Your task to perform on an android device: open app "Messages" (install if not already installed) Image 0: 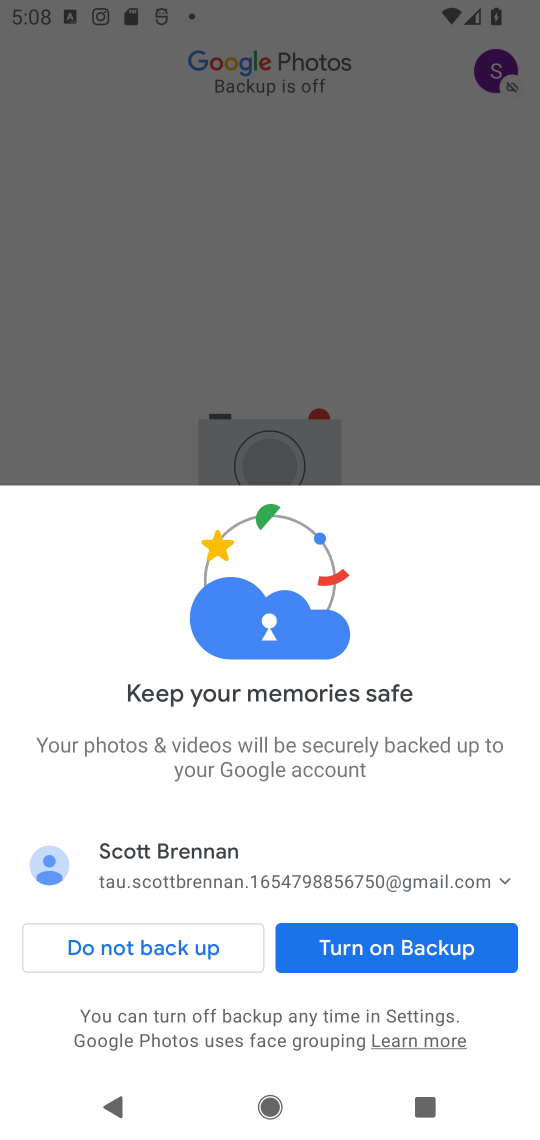
Step 0: press home button
Your task to perform on an android device: open app "Messages" (install if not already installed) Image 1: 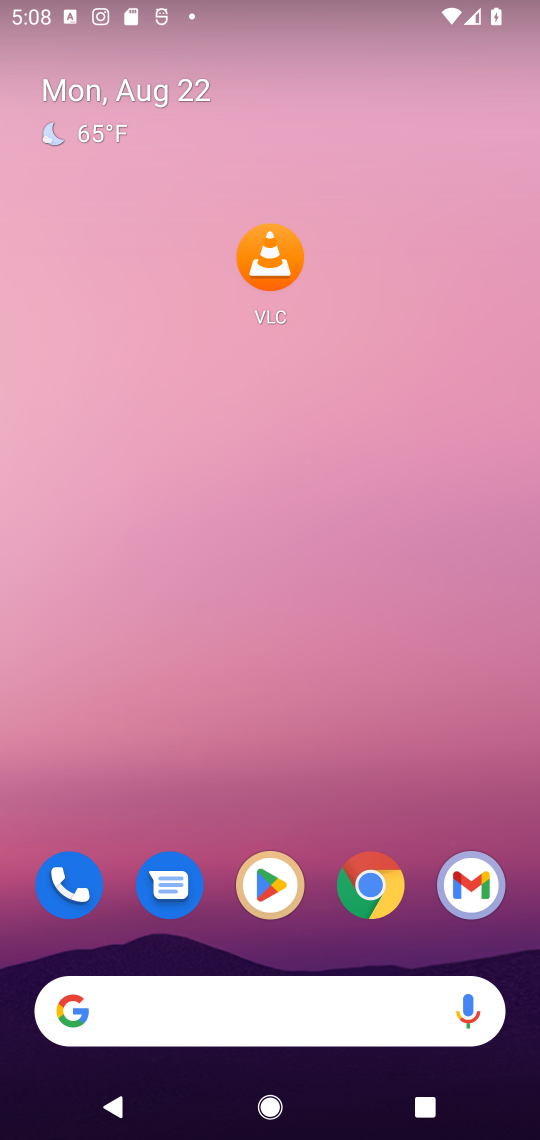
Step 1: click (266, 874)
Your task to perform on an android device: open app "Messages" (install if not already installed) Image 2: 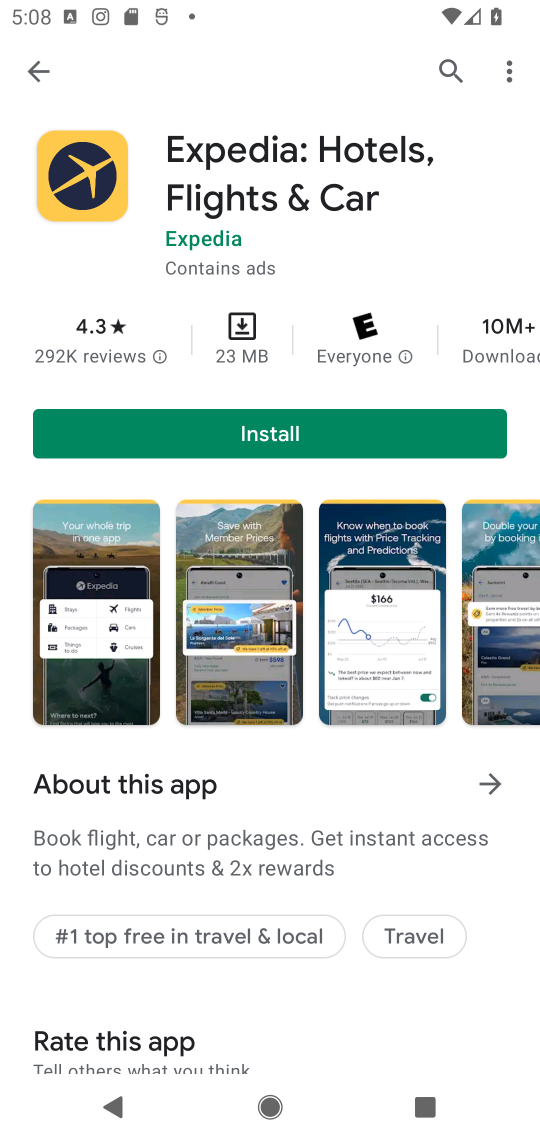
Step 2: click (453, 65)
Your task to perform on an android device: open app "Messages" (install if not already installed) Image 3: 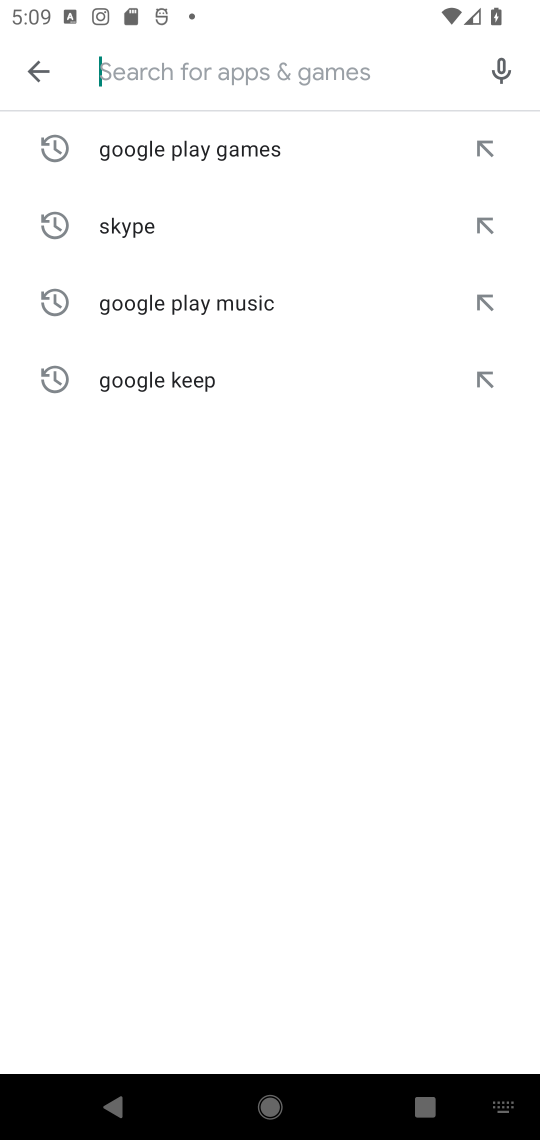
Step 3: type "Messages"
Your task to perform on an android device: open app "Messages" (install if not already installed) Image 4: 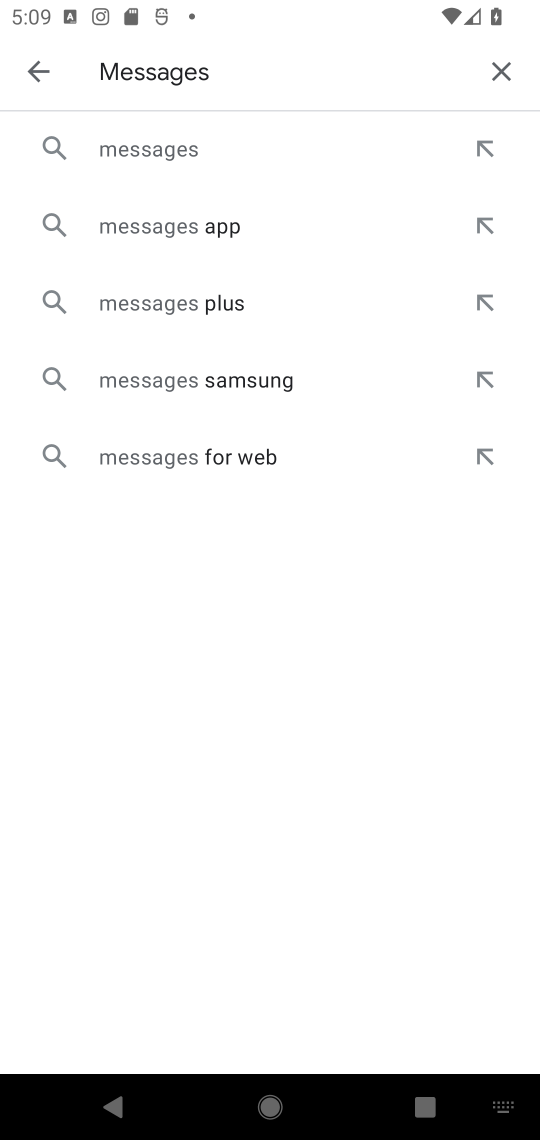
Step 4: click (155, 144)
Your task to perform on an android device: open app "Messages" (install if not already installed) Image 5: 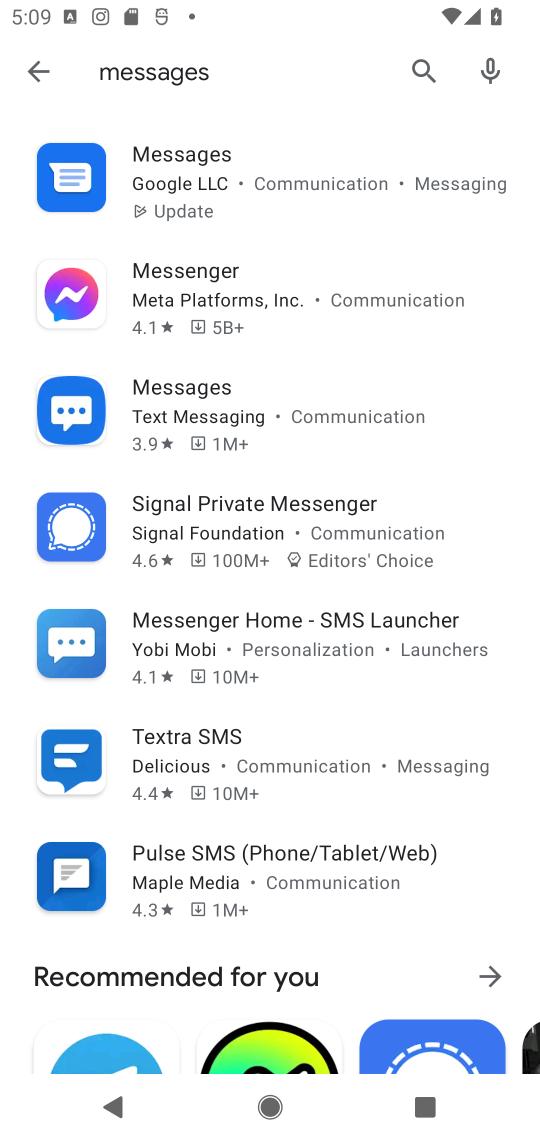
Step 5: click (232, 180)
Your task to perform on an android device: open app "Messages" (install if not already installed) Image 6: 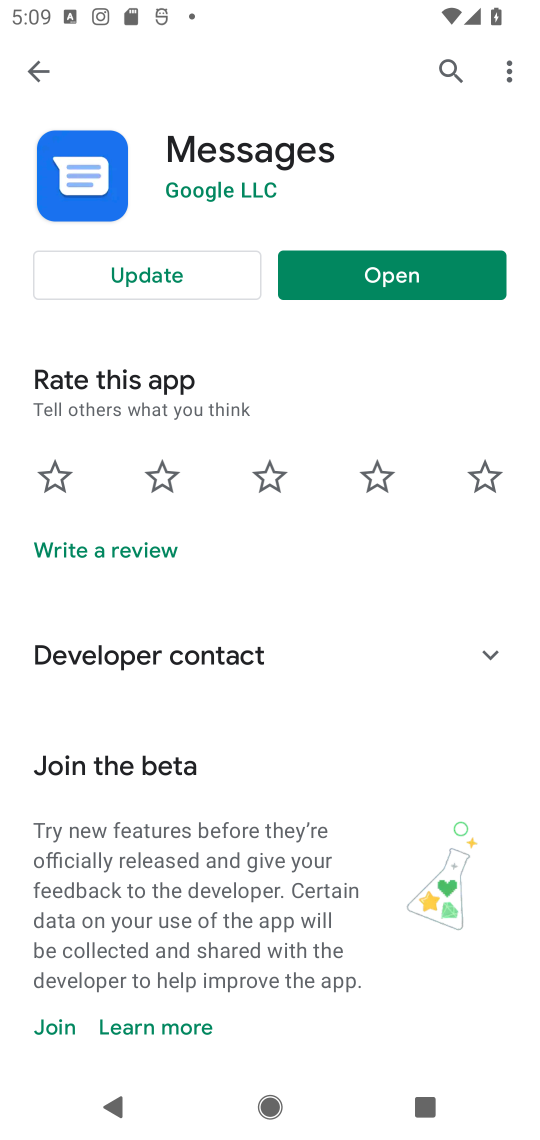
Step 6: click (360, 270)
Your task to perform on an android device: open app "Messages" (install if not already installed) Image 7: 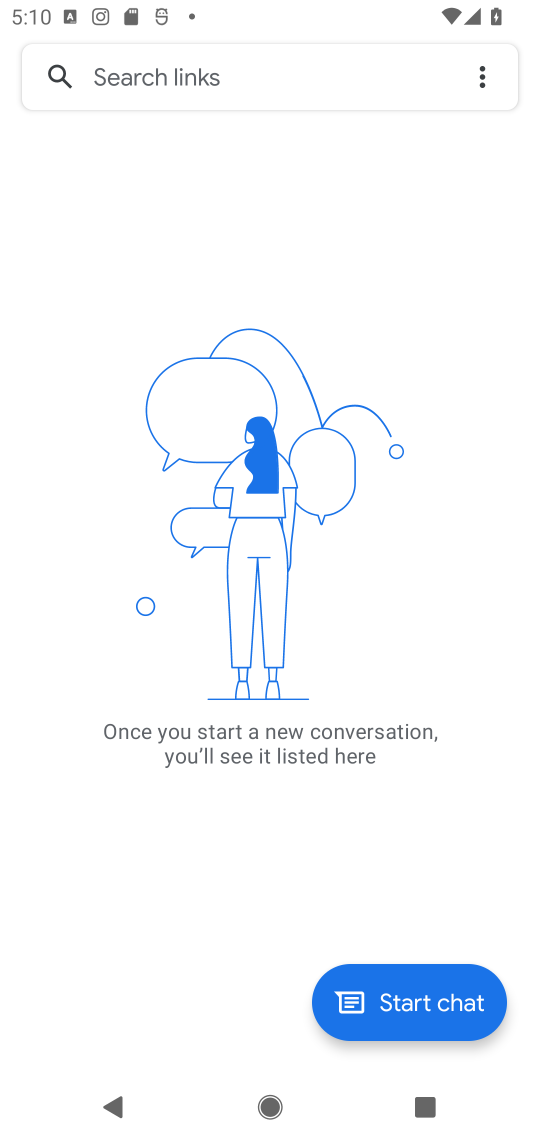
Step 7: task complete